Your task to perform on an android device: uninstall "Etsy: Buy & Sell Unique Items" Image 0: 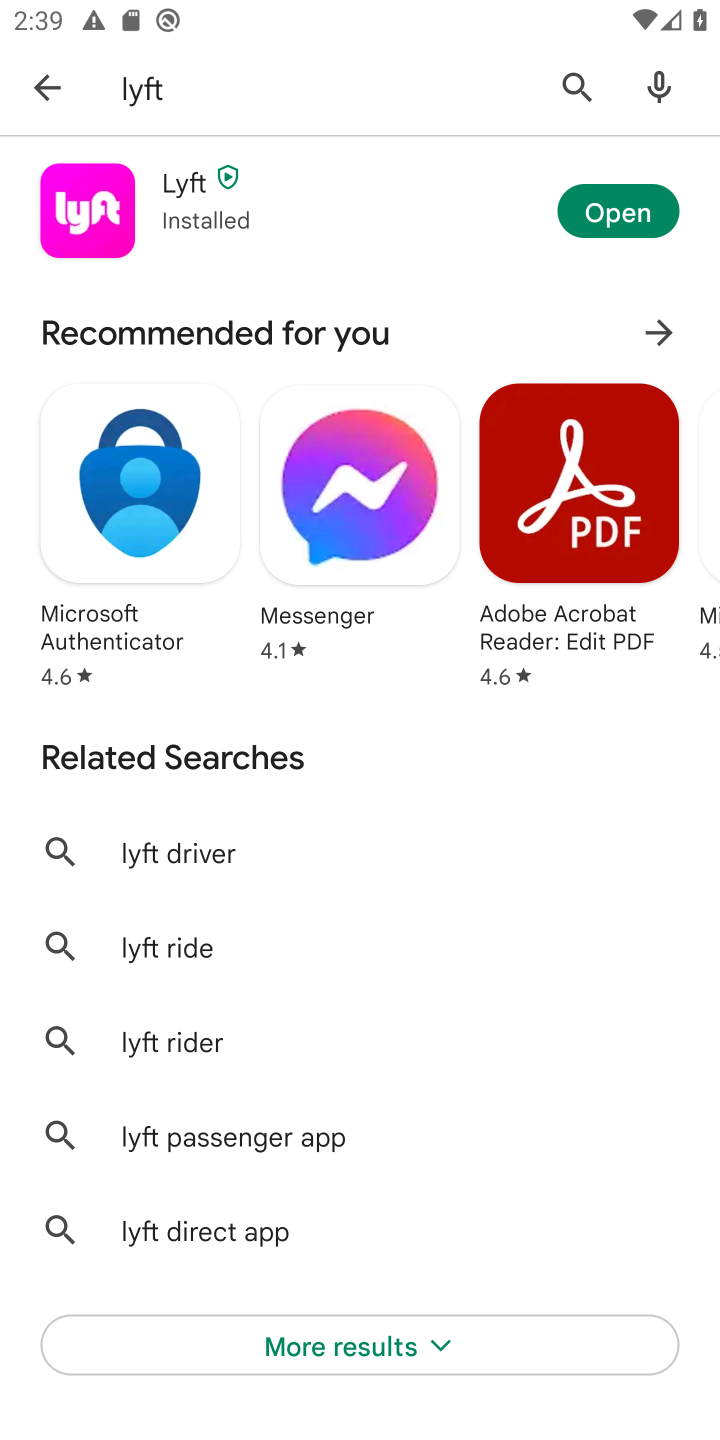
Step 0: press home button
Your task to perform on an android device: uninstall "Etsy: Buy & Sell Unique Items" Image 1: 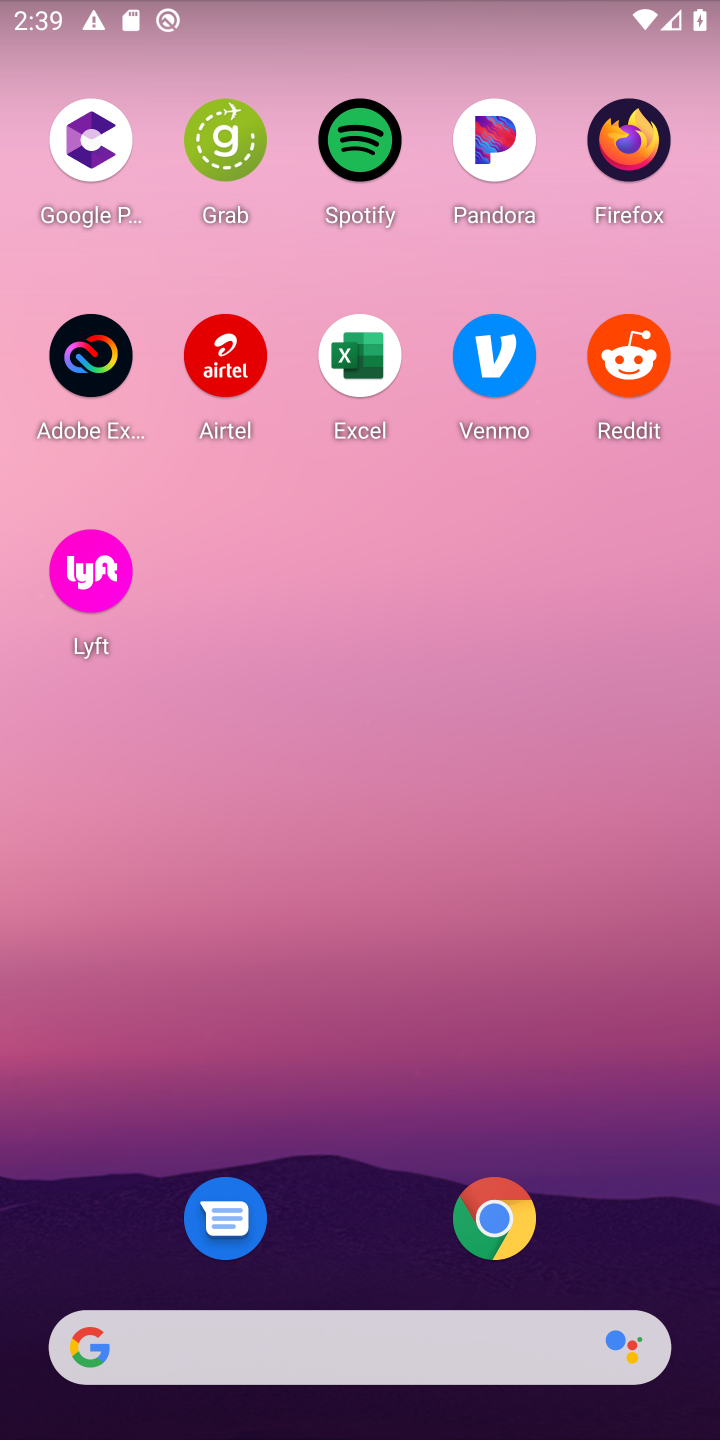
Step 1: drag from (378, 1141) to (464, 333)
Your task to perform on an android device: uninstall "Etsy: Buy & Sell Unique Items" Image 2: 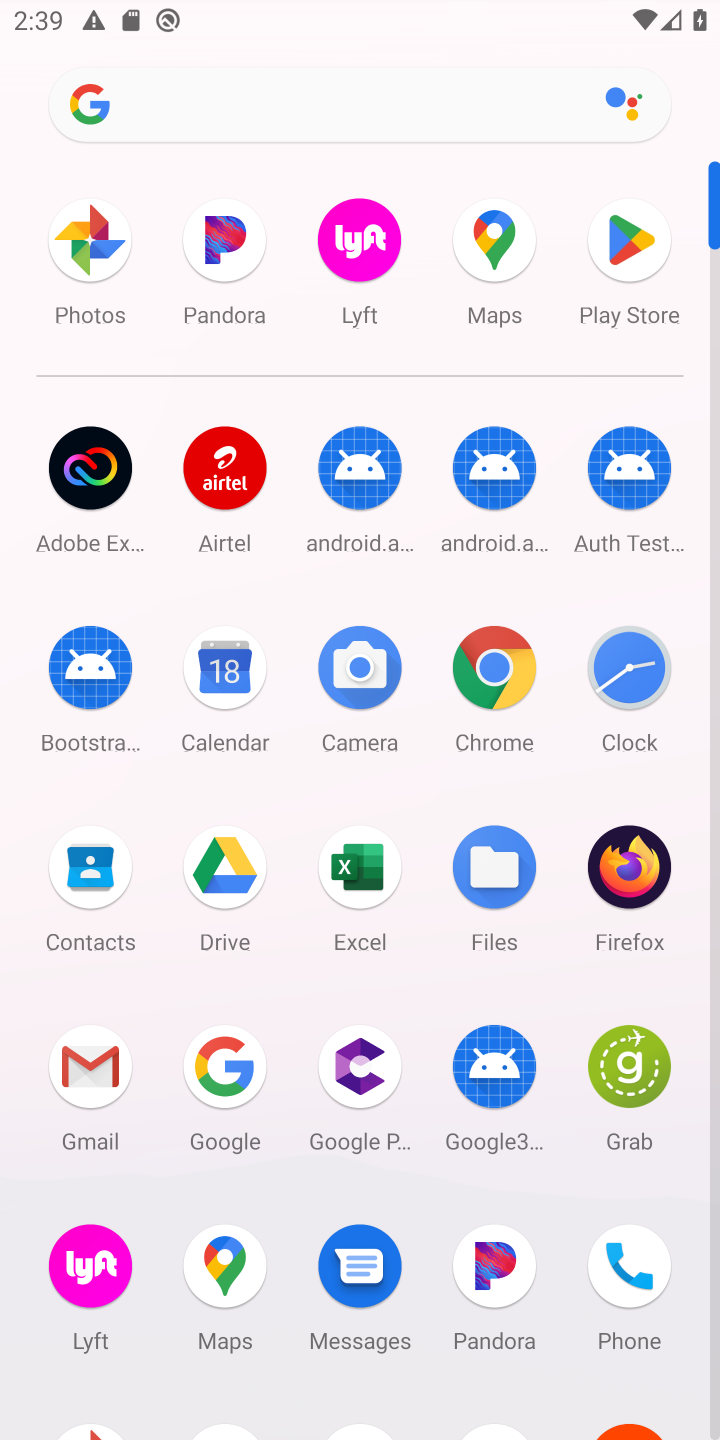
Step 2: click (619, 257)
Your task to perform on an android device: uninstall "Etsy: Buy & Sell Unique Items" Image 3: 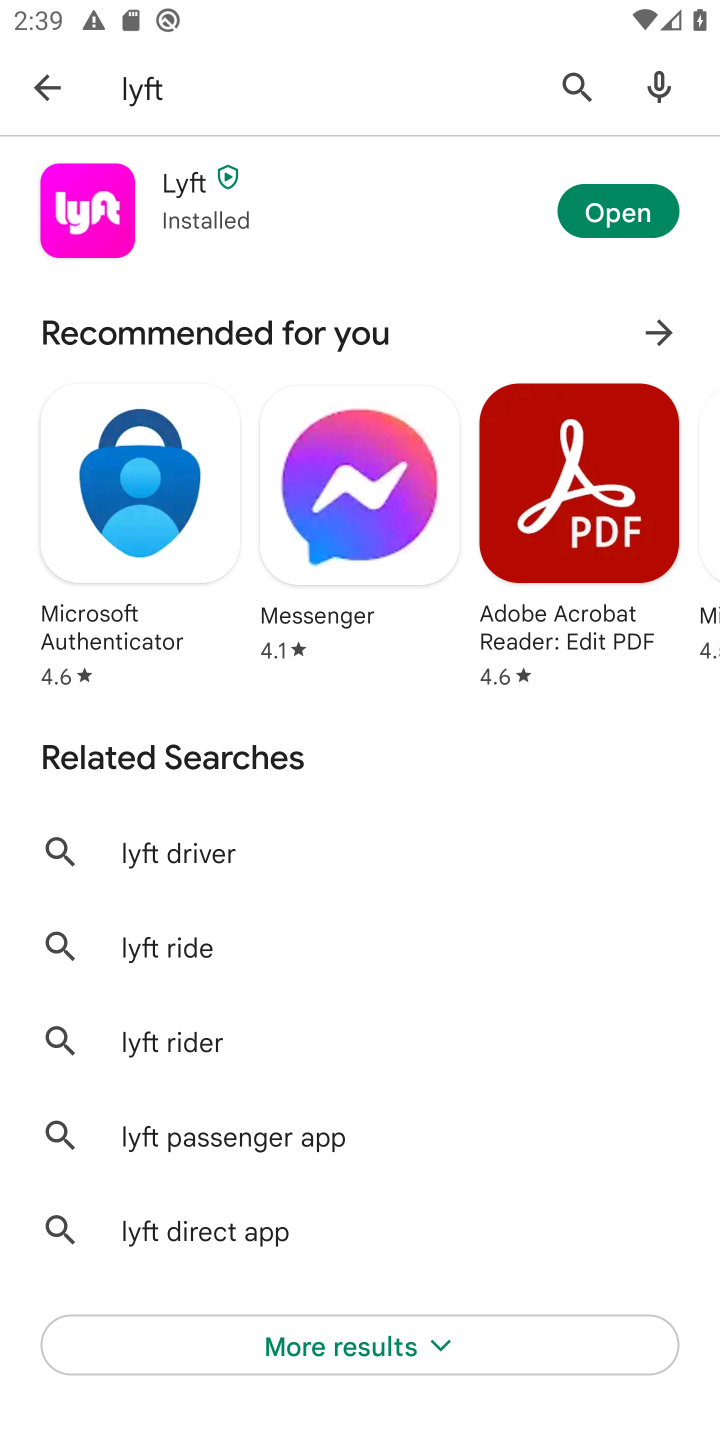
Step 3: click (553, 68)
Your task to perform on an android device: uninstall "Etsy: Buy & Sell Unique Items" Image 4: 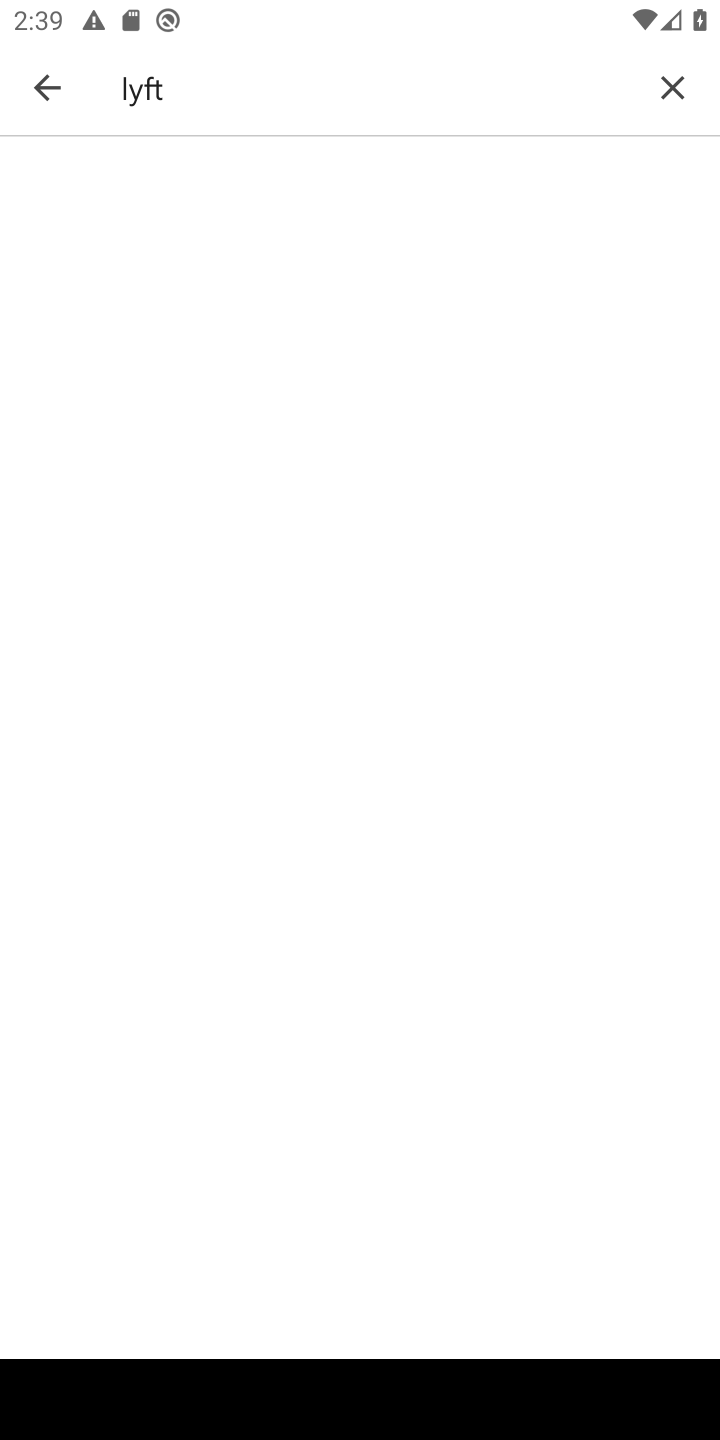
Step 4: click (674, 89)
Your task to perform on an android device: uninstall "Etsy: Buy & Sell Unique Items" Image 5: 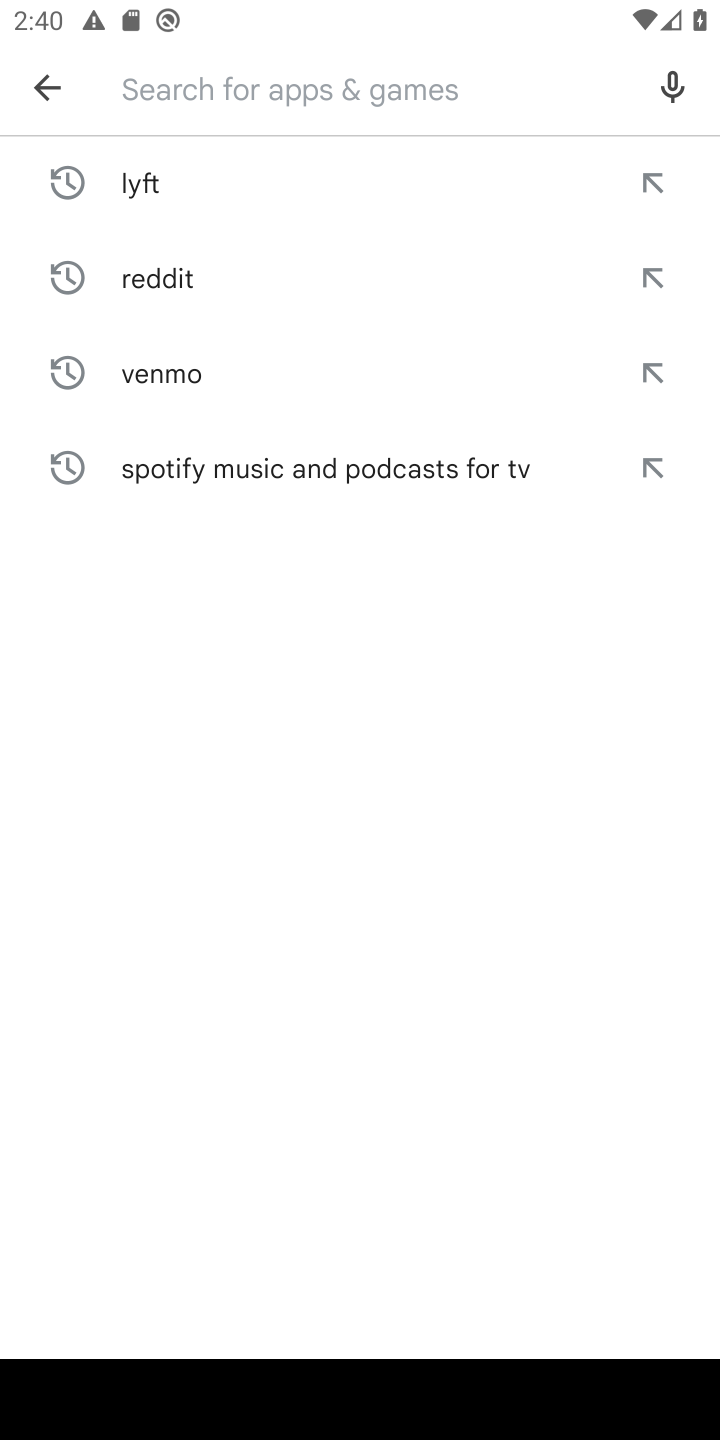
Step 5: type "Etsy: Buy & Sell Unique Items"
Your task to perform on an android device: uninstall "Etsy: Buy & Sell Unique Items" Image 6: 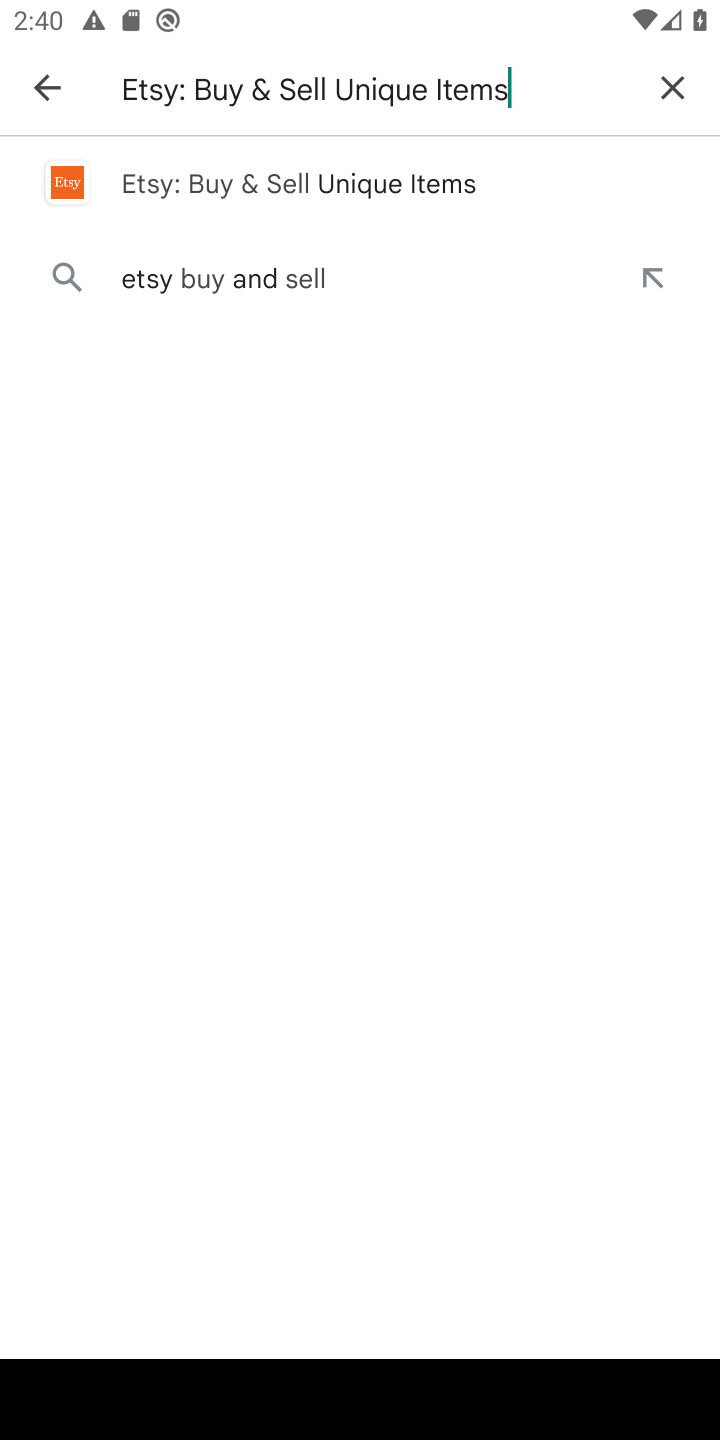
Step 6: type ""
Your task to perform on an android device: uninstall "Etsy: Buy & Sell Unique Items" Image 7: 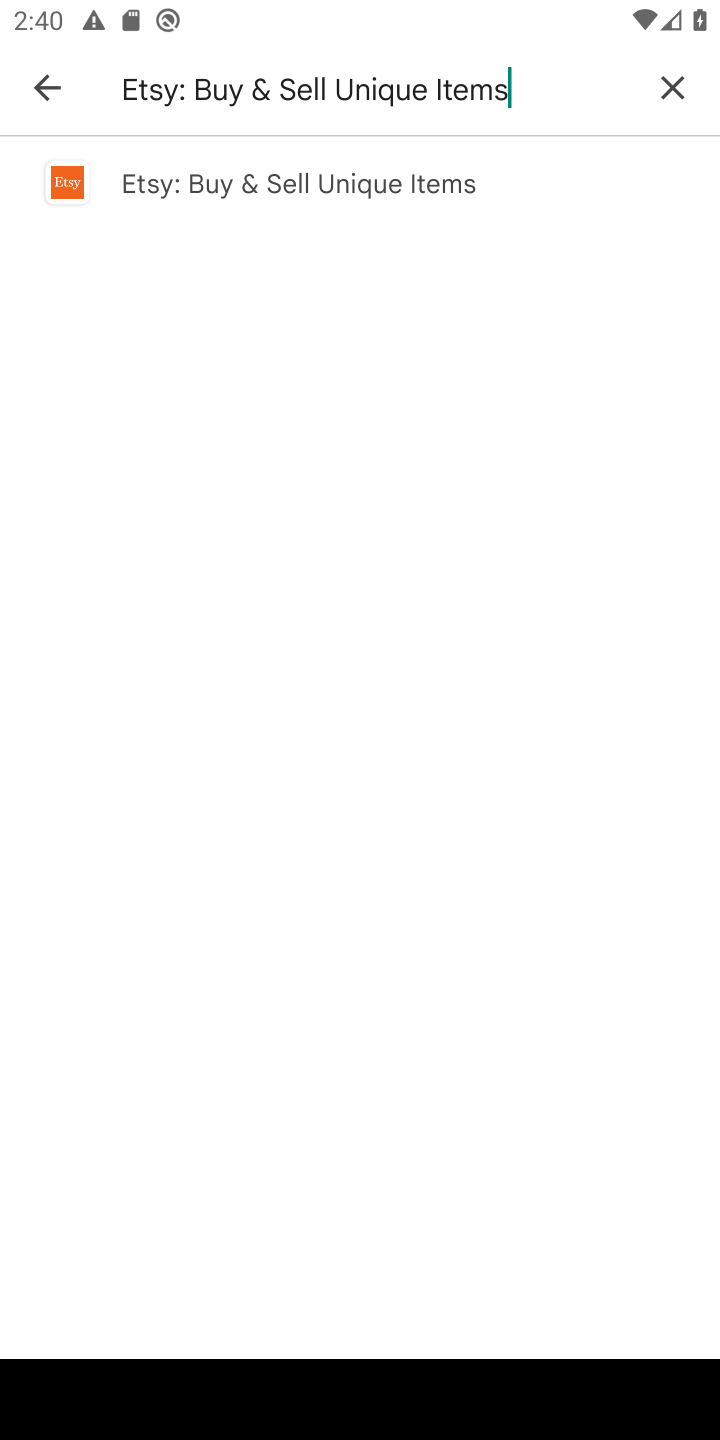
Step 7: click (197, 185)
Your task to perform on an android device: uninstall "Etsy: Buy & Sell Unique Items" Image 8: 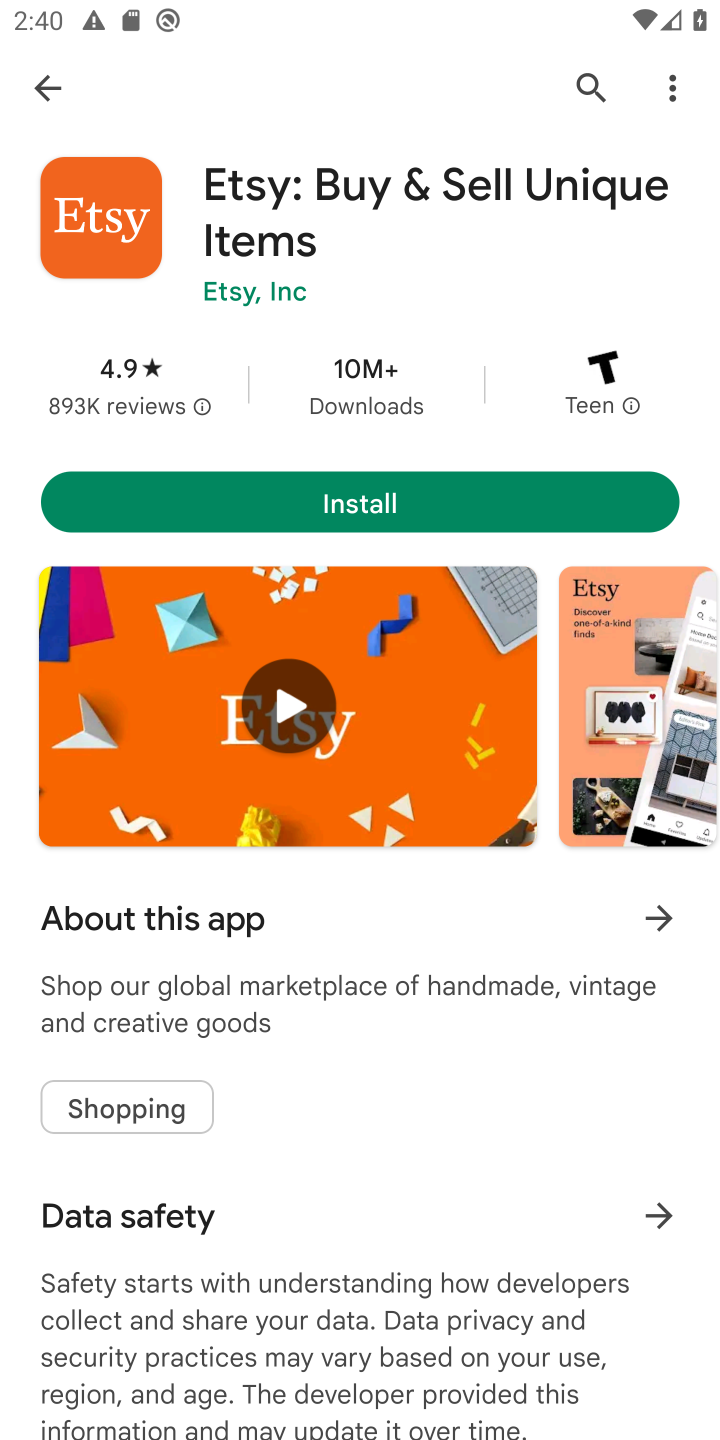
Step 8: task complete